Your task to perform on an android device: Clear the shopping cart on amazon. Image 0: 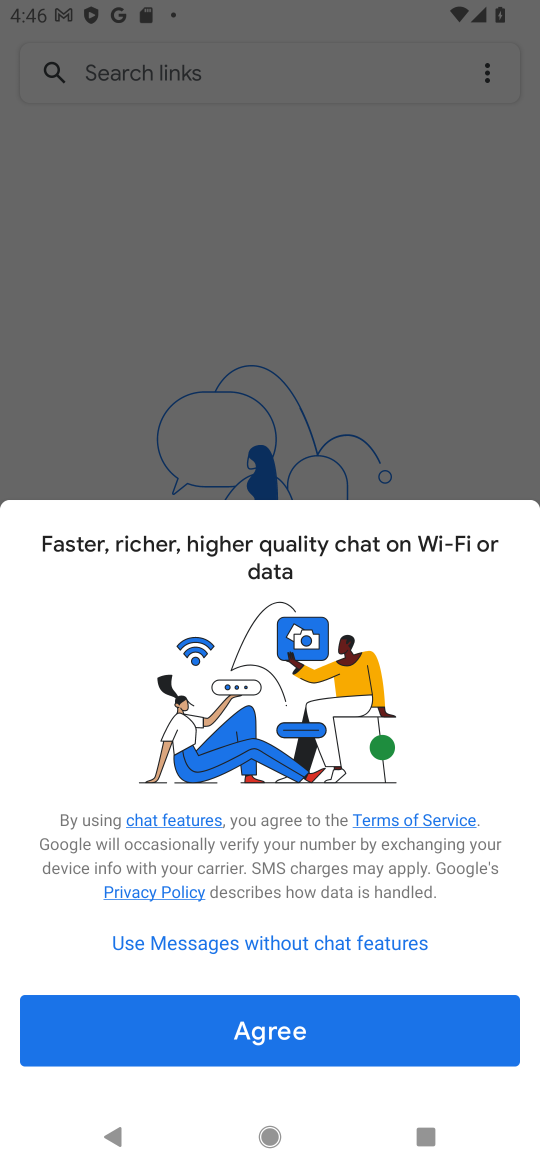
Step 0: press home button
Your task to perform on an android device: Clear the shopping cart on amazon. Image 1: 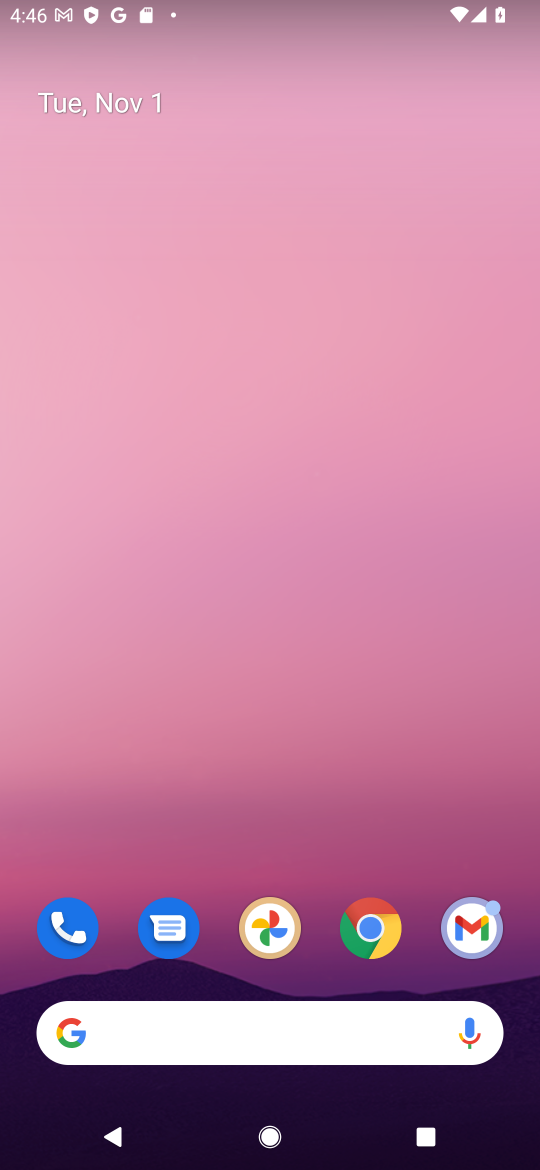
Step 1: click (391, 935)
Your task to perform on an android device: Clear the shopping cart on amazon. Image 2: 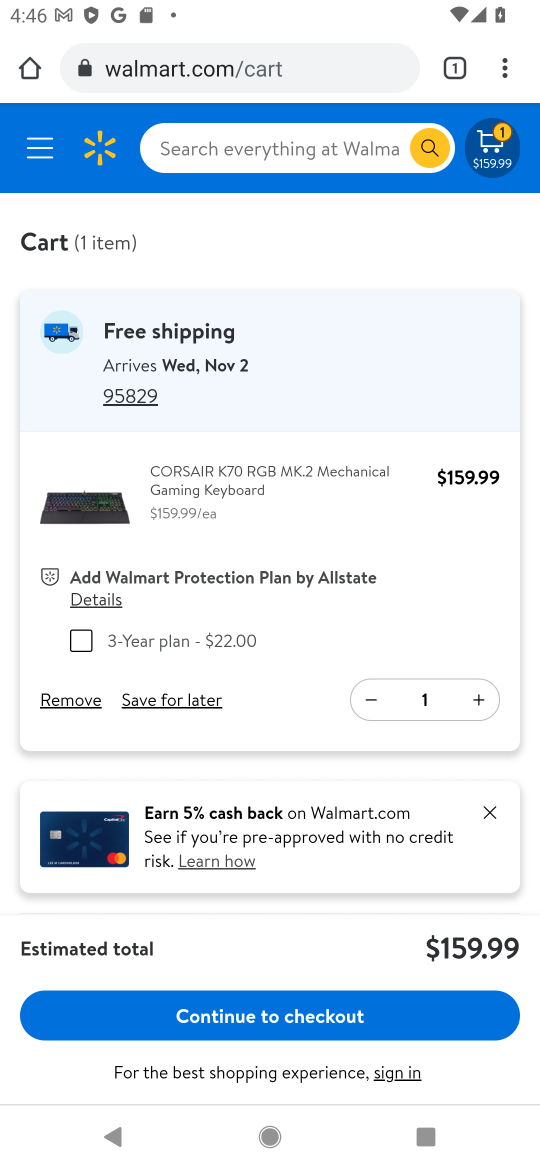
Step 2: click (294, 68)
Your task to perform on an android device: Clear the shopping cart on amazon. Image 3: 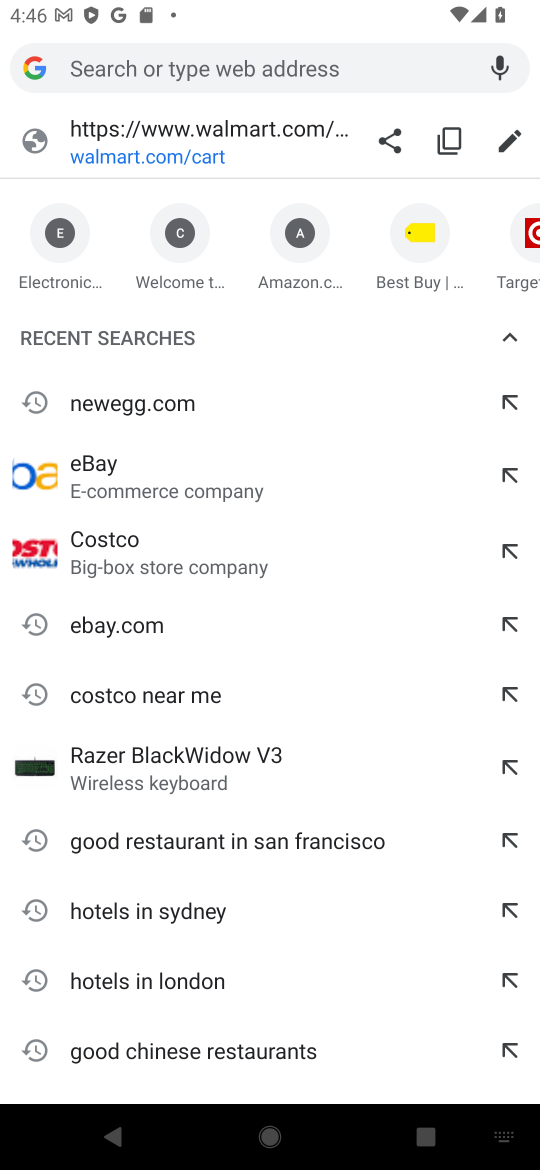
Step 3: type "amazon"
Your task to perform on an android device: Clear the shopping cart on amazon. Image 4: 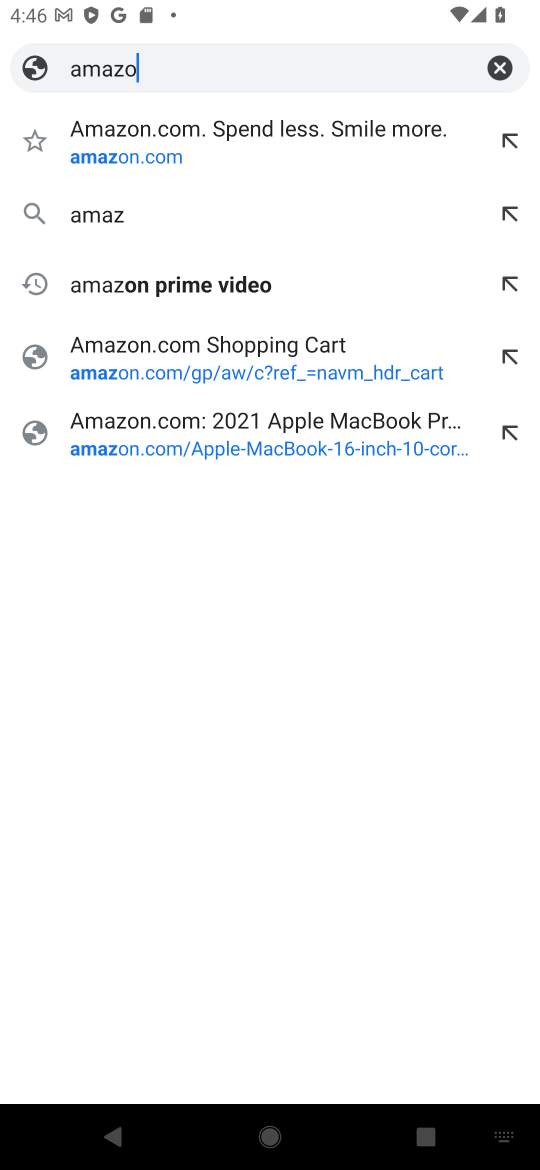
Step 4: type ""
Your task to perform on an android device: Clear the shopping cart on amazon. Image 5: 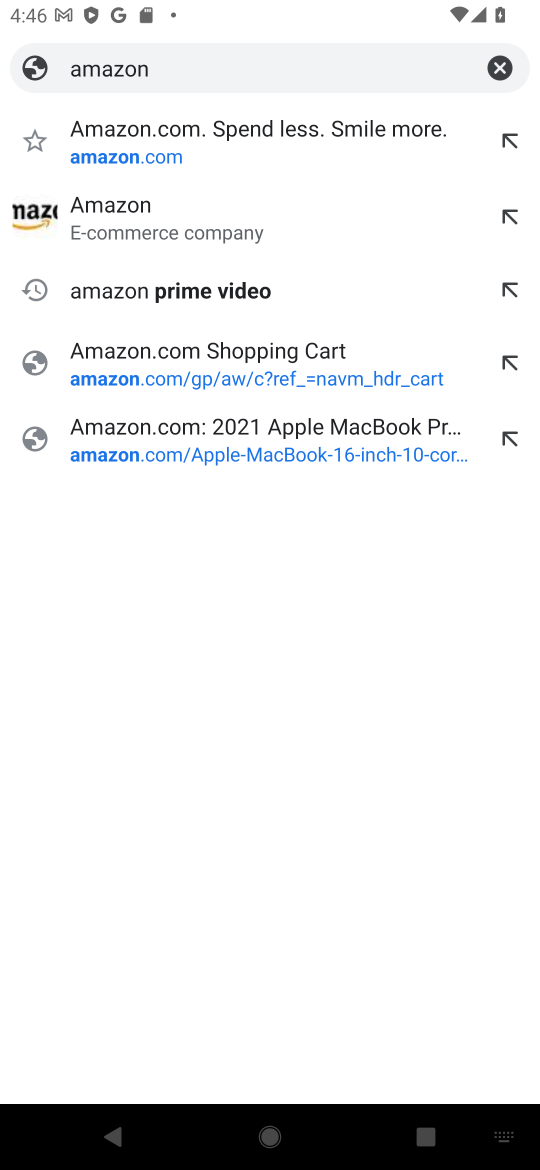
Step 5: press enter
Your task to perform on an android device: Clear the shopping cart on amazon. Image 6: 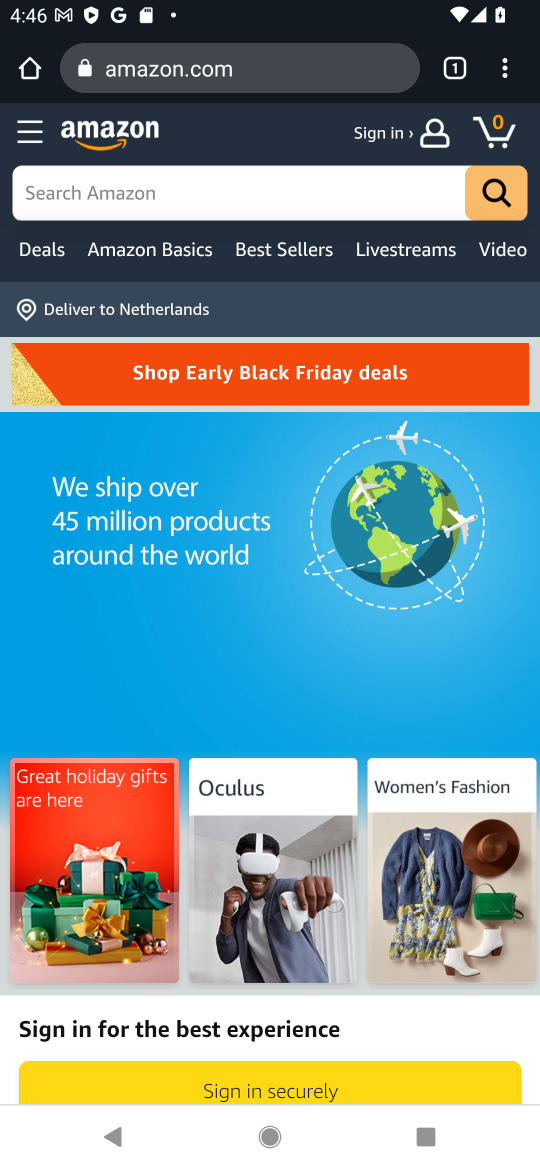
Step 6: click (488, 136)
Your task to perform on an android device: Clear the shopping cart on amazon. Image 7: 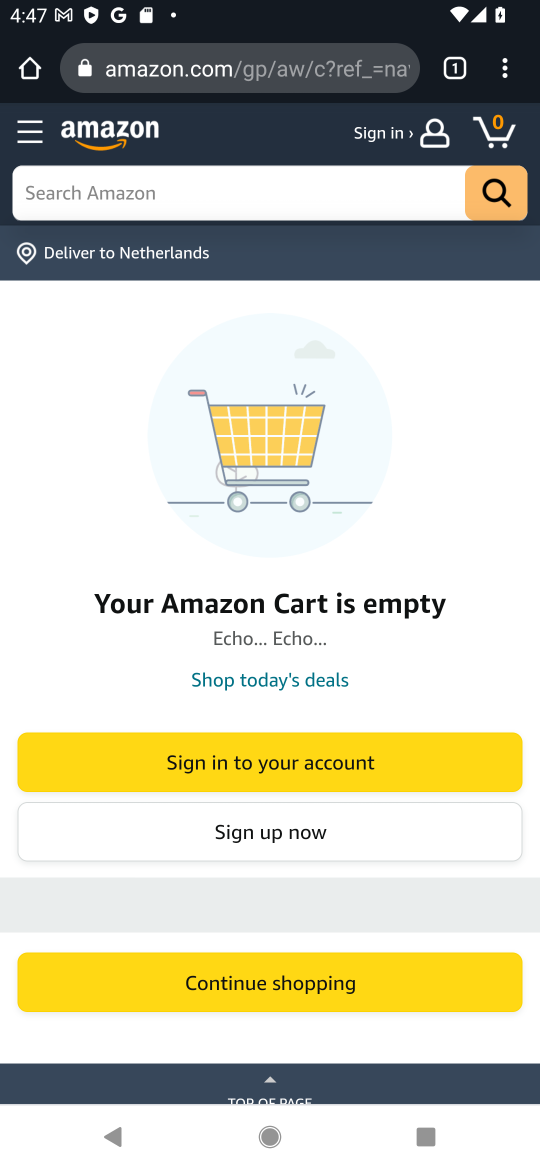
Step 7: task complete